Your task to perform on an android device: Show me the alarms in the clock app Image 0: 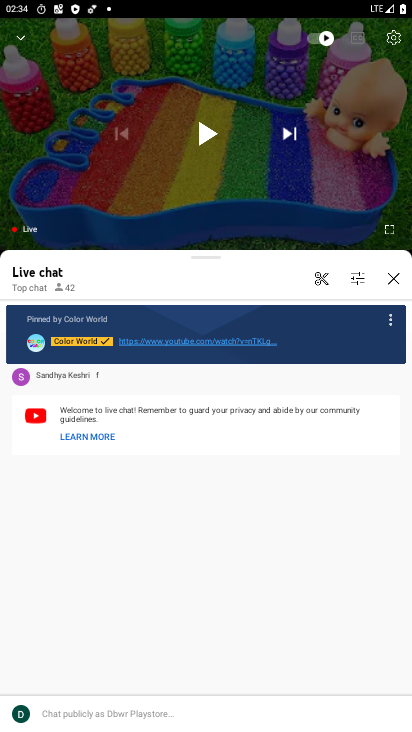
Step 0: press home button
Your task to perform on an android device: Show me the alarms in the clock app Image 1: 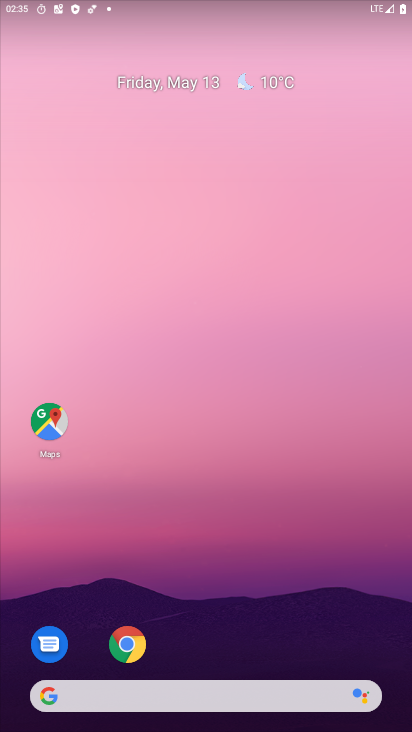
Step 1: drag from (127, 693) to (237, 9)
Your task to perform on an android device: Show me the alarms in the clock app Image 2: 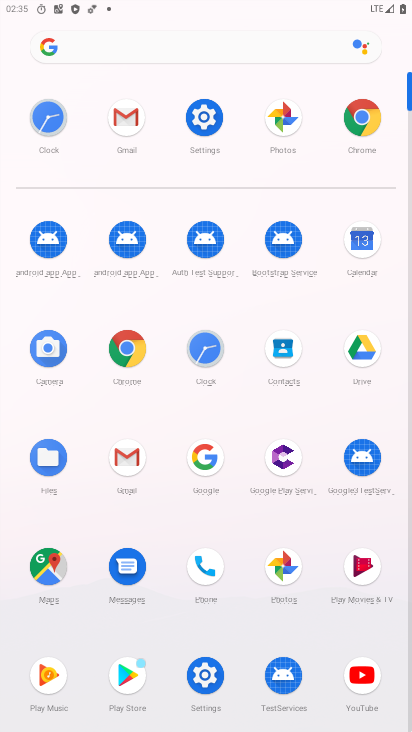
Step 2: click (193, 348)
Your task to perform on an android device: Show me the alarms in the clock app Image 3: 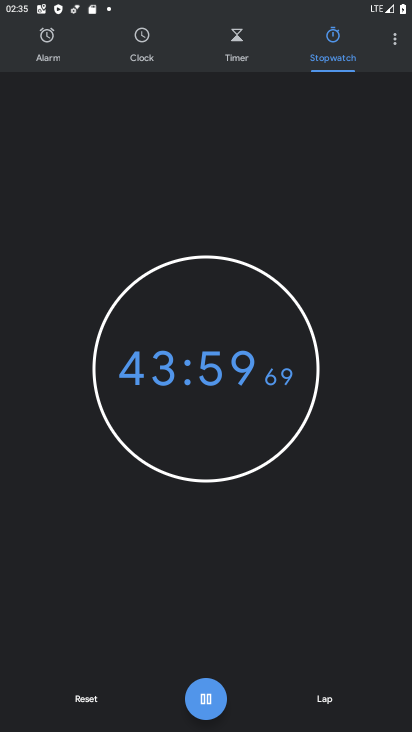
Step 3: click (63, 36)
Your task to perform on an android device: Show me the alarms in the clock app Image 4: 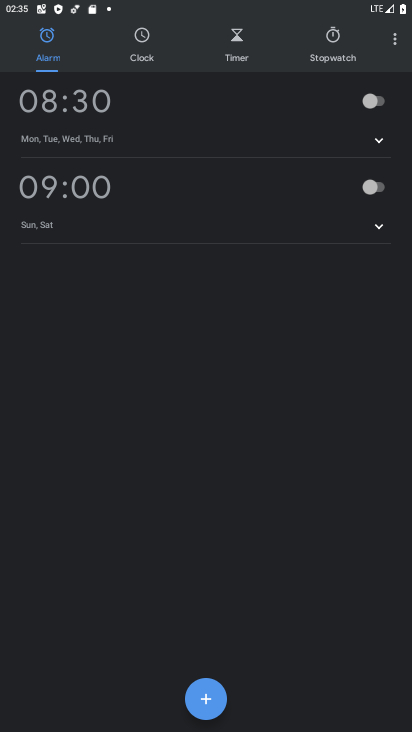
Step 4: task complete